Your task to perform on an android device: turn on wifi Image 0: 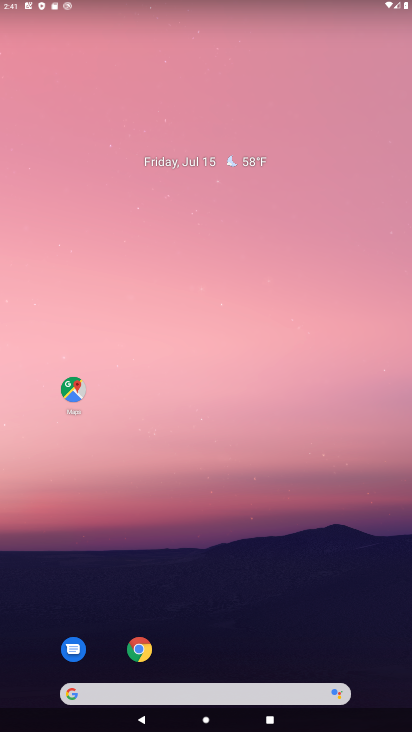
Step 0: drag from (235, 700) to (208, 167)
Your task to perform on an android device: turn on wifi Image 1: 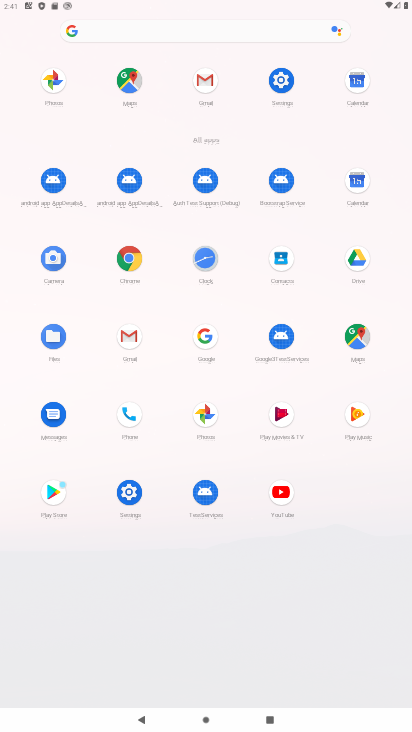
Step 1: click (286, 75)
Your task to perform on an android device: turn on wifi Image 2: 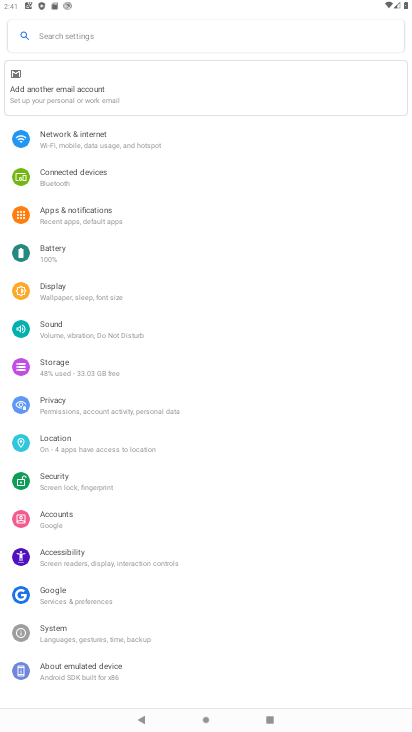
Step 2: click (63, 139)
Your task to perform on an android device: turn on wifi Image 3: 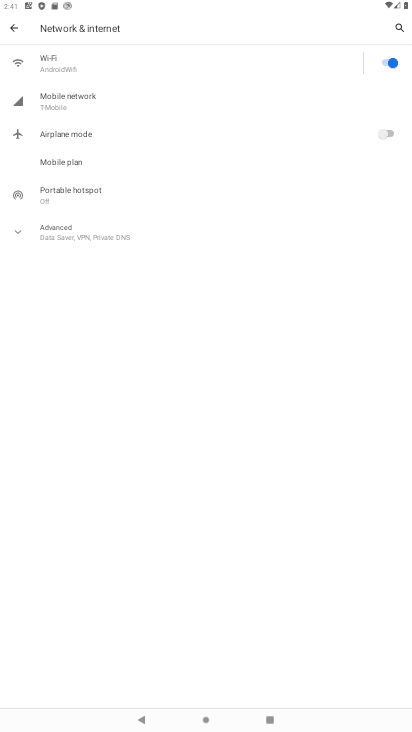
Step 3: task complete